Your task to perform on an android device: find snoozed emails in the gmail app Image 0: 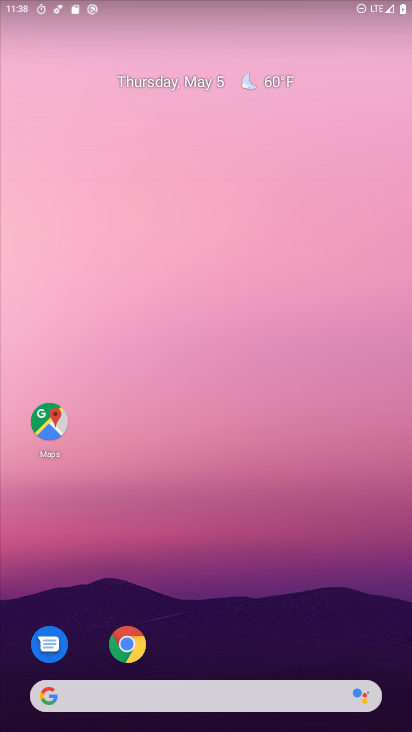
Step 0: drag from (372, 643) to (367, 153)
Your task to perform on an android device: find snoozed emails in the gmail app Image 1: 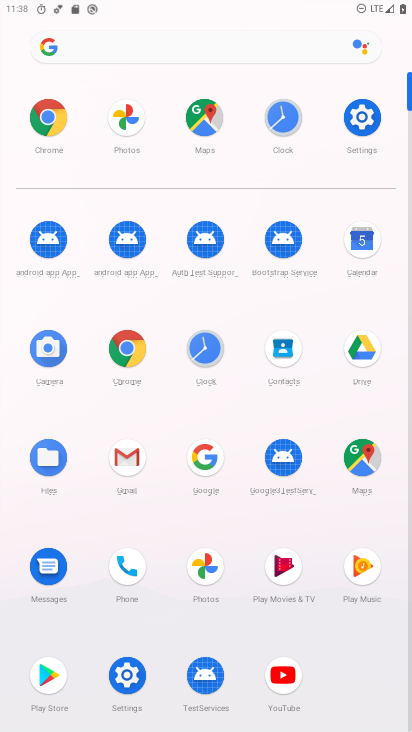
Step 1: click (128, 470)
Your task to perform on an android device: find snoozed emails in the gmail app Image 2: 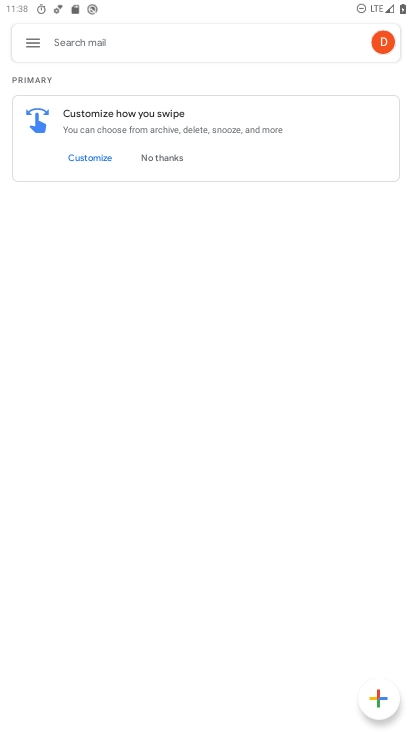
Step 2: click (34, 48)
Your task to perform on an android device: find snoozed emails in the gmail app Image 3: 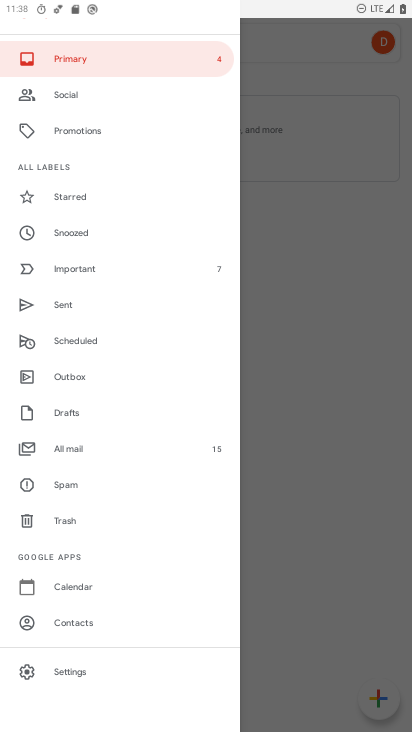
Step 3: click (98, 225)
Your task to perform on an android device: find snoozed emails in the gmail app Image 4: 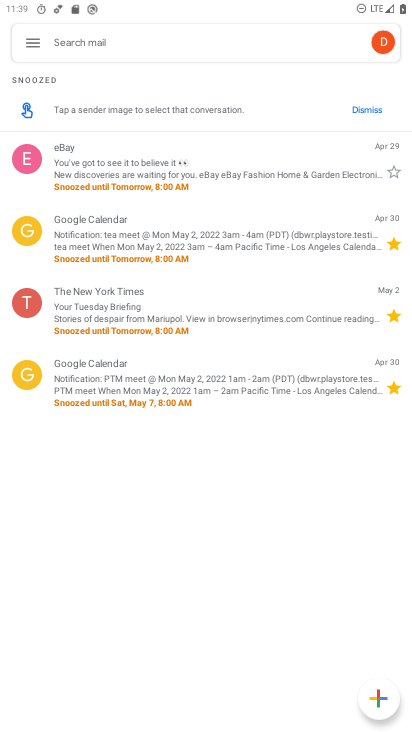
Step 4: task complete